Your task to perform on an android device: change the upload size in google photos Image 0: 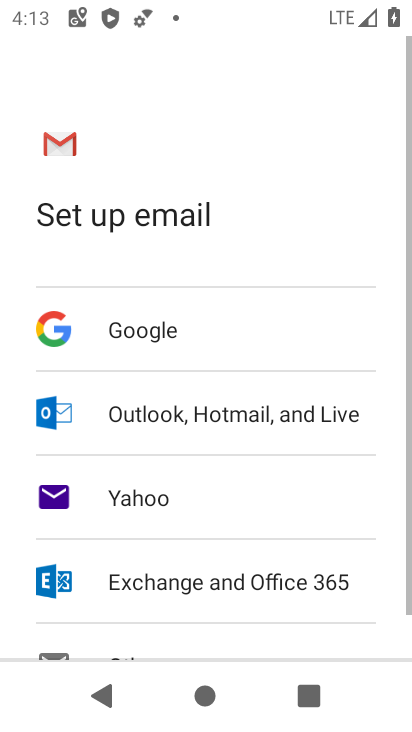
Step 0: press home button
Your task to perform on an android device: change the upload size in google photos Image 1: 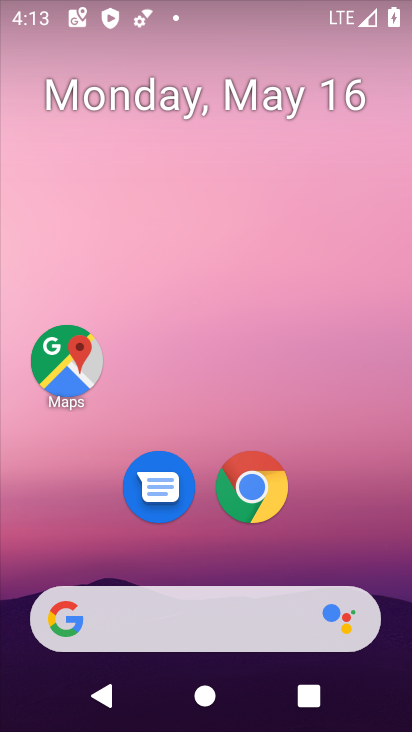
Step 1: drag from (404, 624) to (306, 105)
Your task to perform on an android device: change the upload size in google photos Image 2: 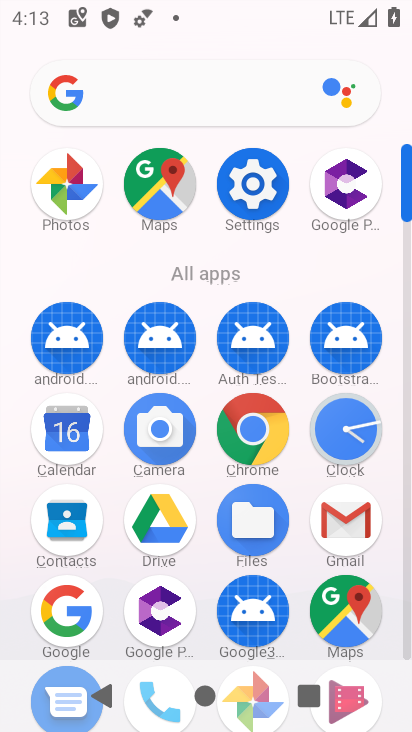
Step 2: click (405, 646)
Your task to perform on an android device: change the upload size in google photos Image 3: 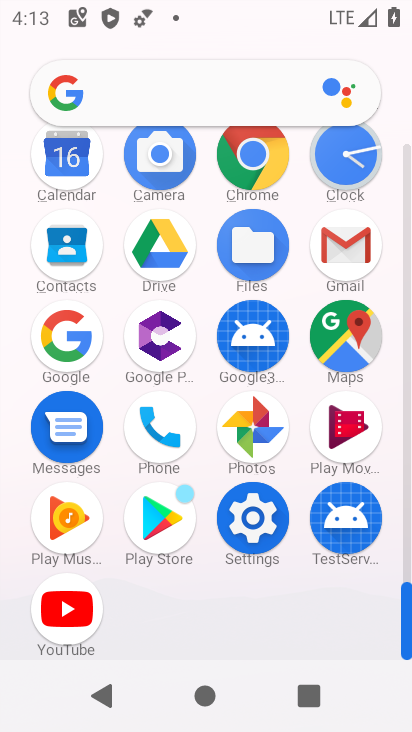
Step 3: click (254, 427)
Your task to perform on an android device: change the upload size in google photos Image 4: 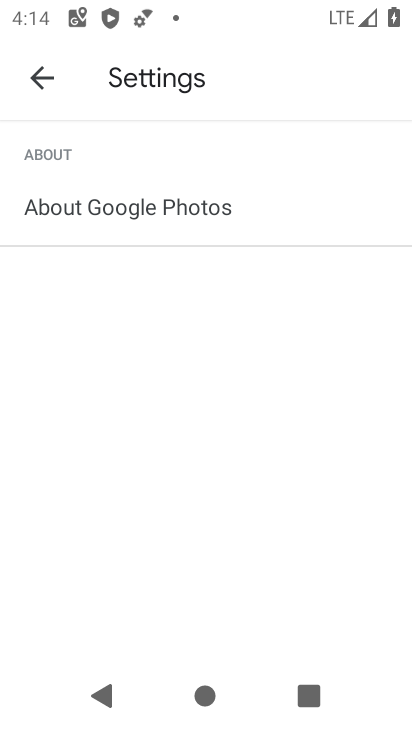
Step 4: press back button
Your task to perform on an android device: change the upload size in google photos Image 5: 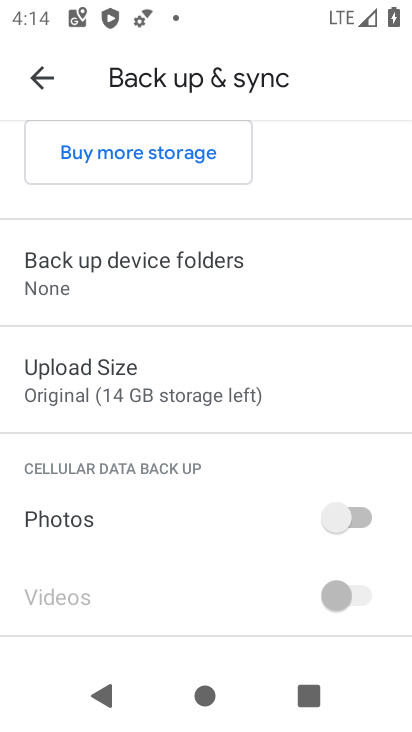
Step 5: click (96, 377)
Your task to perform on an android device: change the upload size in google photos Image 6: 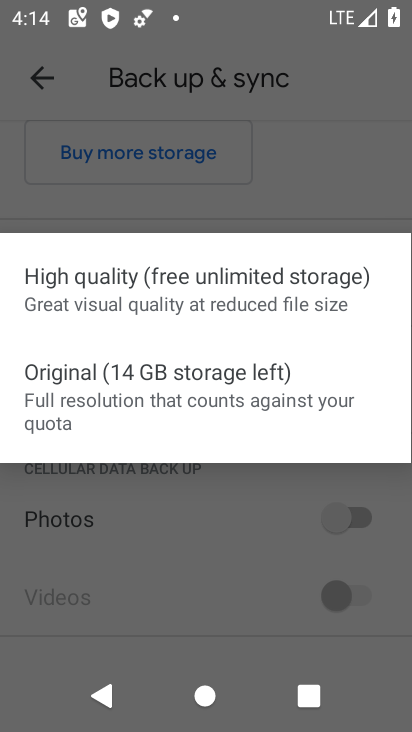
Step 6: click (122, 278)
Your task to perform on an android device: change the upload size in google photos Image 7: 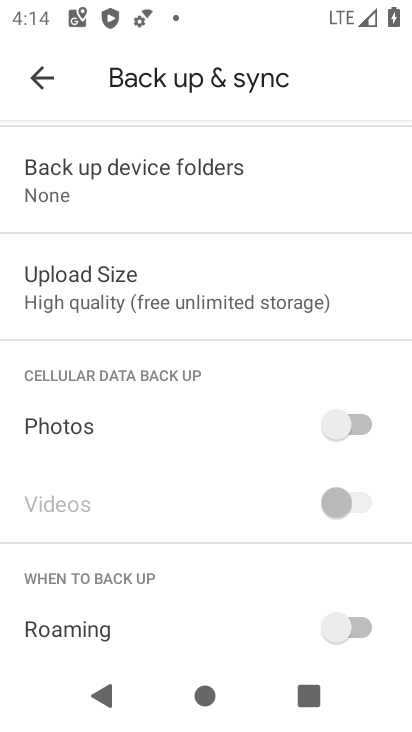
Step 7: task complete